Your task to perform on an android device: turn off airplane mode Image 0: 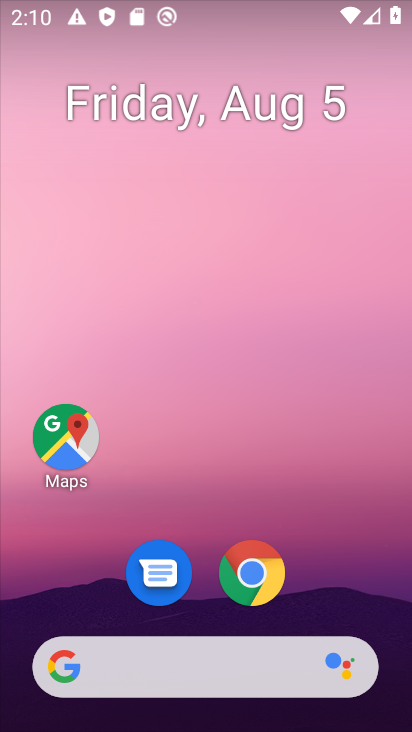
Step 0: drag from (327, 609) to (242, 11)
Your task to perform on an android device: turn off airplane mode Image 1: 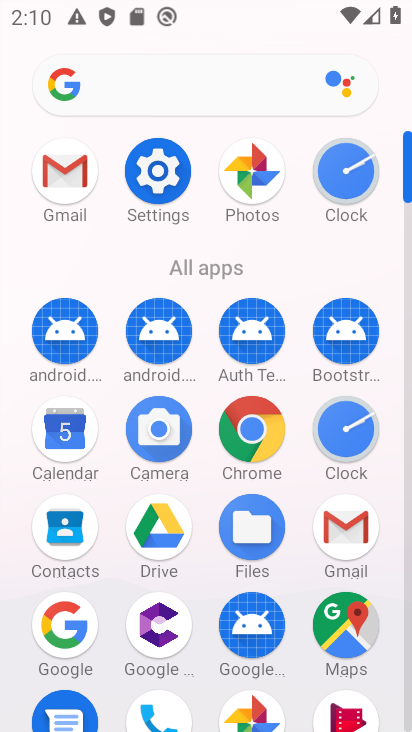
Step 1: click (178, 187)
Your task to perform on an android device: turn off airplane mode Image 2: 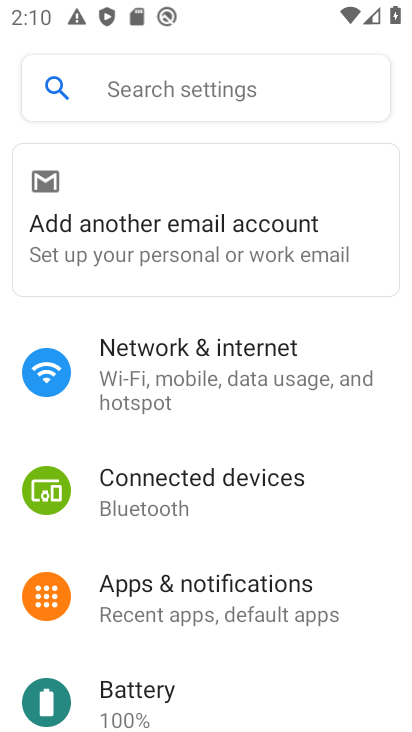
Step 2: click (297, 380)
Your task to perform on an android device: turn off airplane mode Image 3: 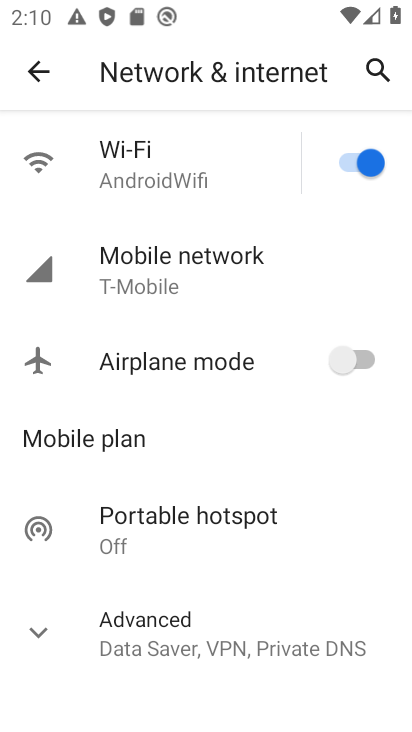
Step 3: task complete